Your task to perform on an android device: choose inbox layout in the gmail app Image 0: 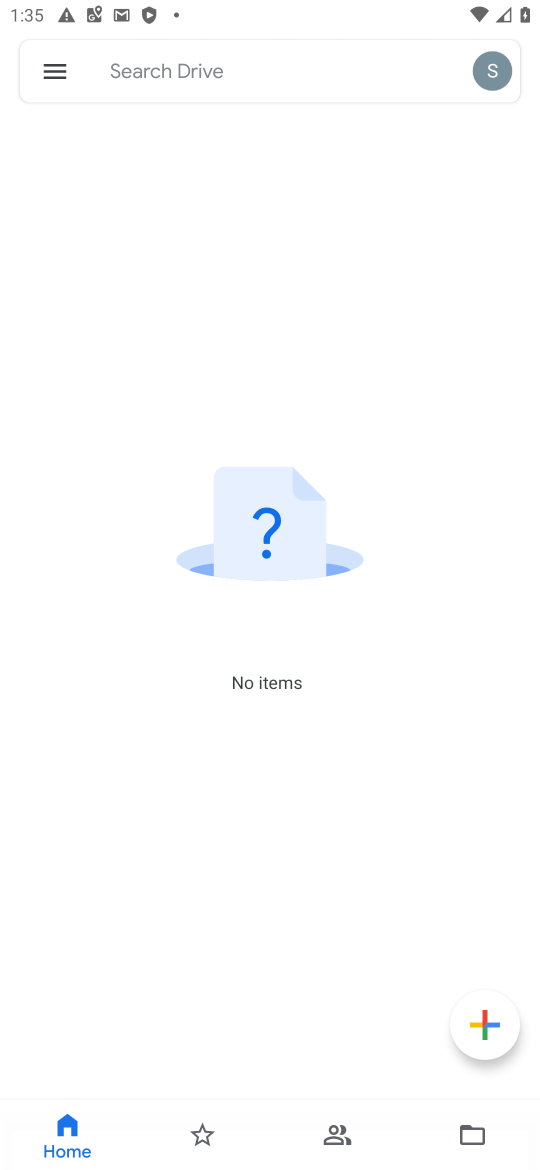
Step 0: press home button
Your task to perform on an android device: choose inbox layout in the gmail app Image 1: 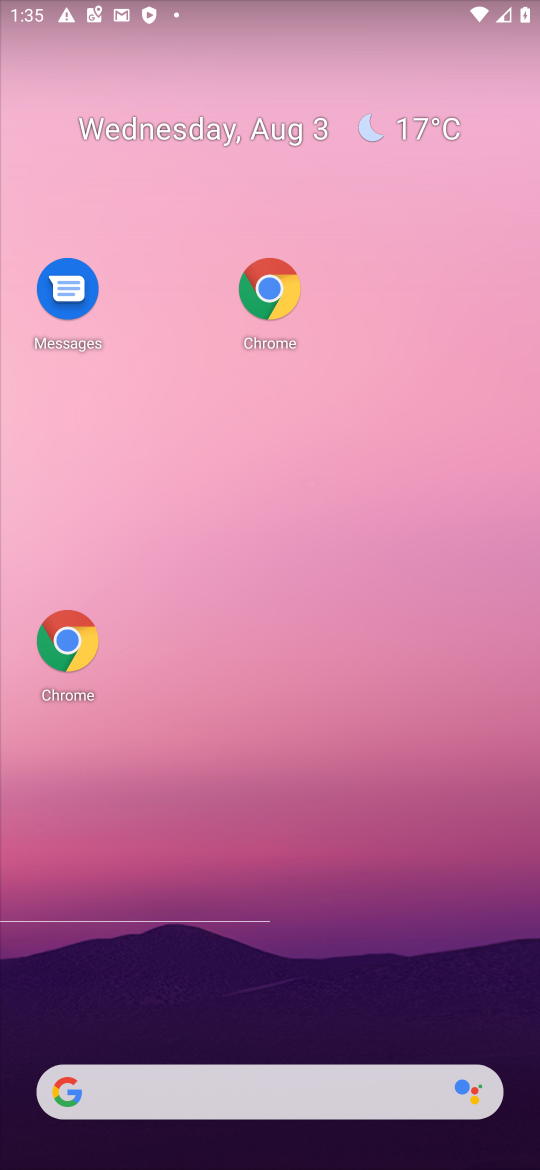
Step 1: drag from (332, 873) to (364, 343)
Your task to perform on an android device: choose inbox layout in the gmail app Image 2: 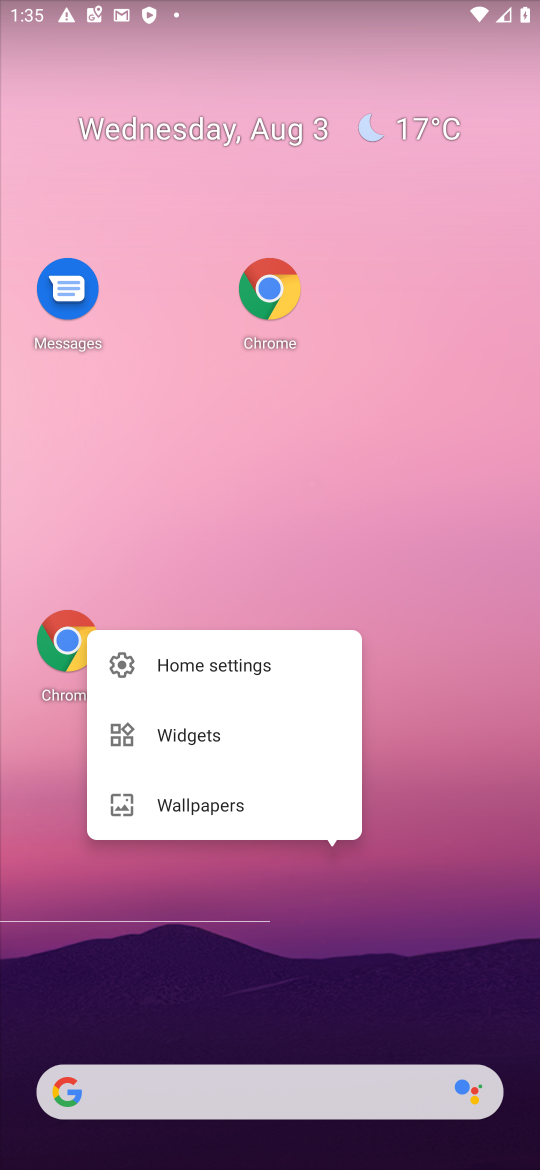
Step 2: click (356, 904)
Your task to perform on an android device: choose inbox layout in the gmail app Image 3: 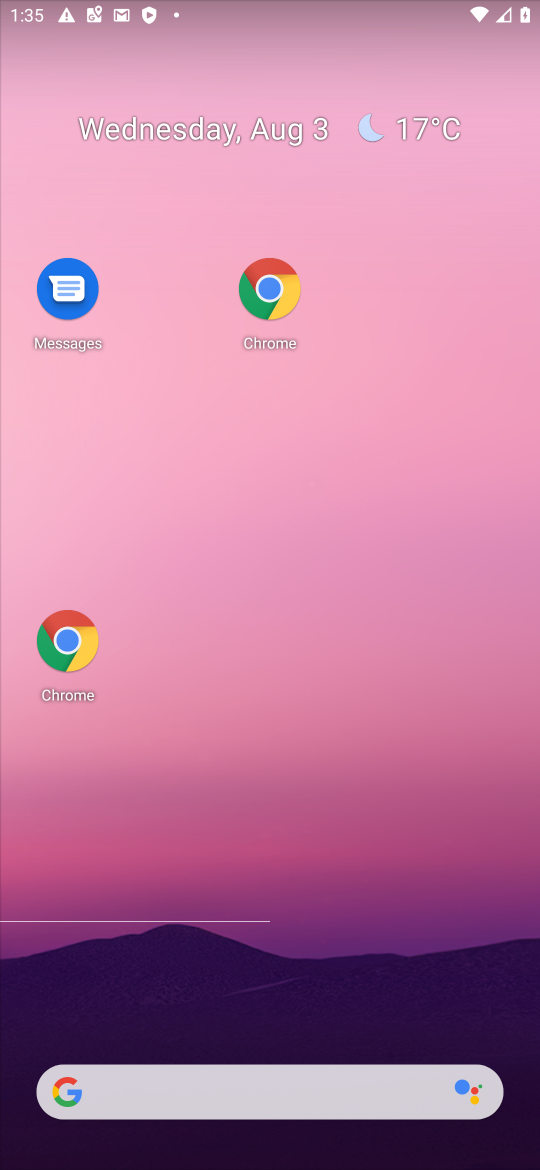
Step 3: drag from (356, 904) to (343, 305)
Your task to perform on an android device: choose inbox layout in the gmail app Image 4: 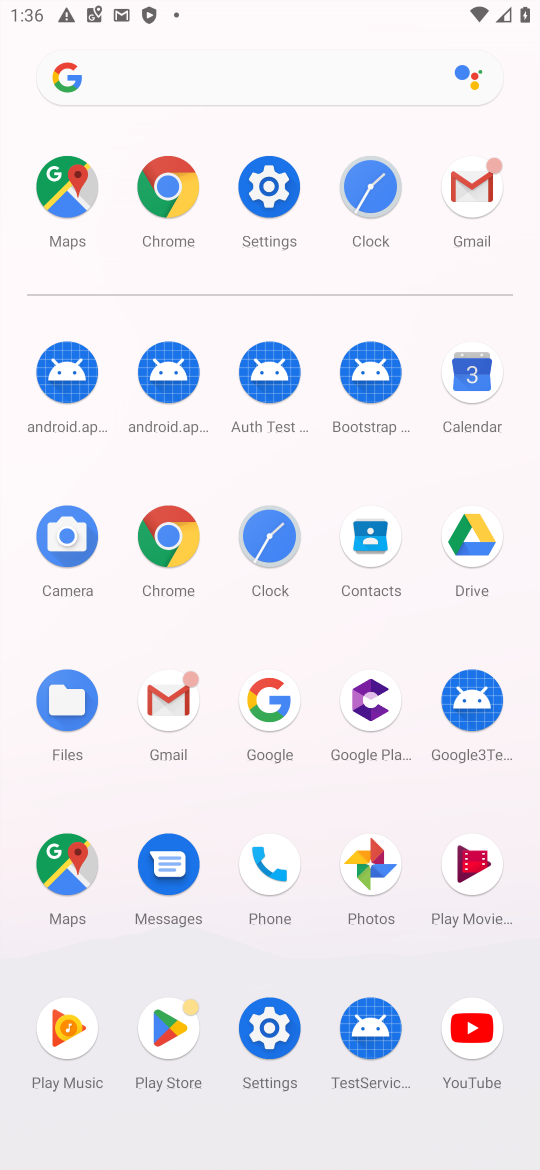
Step 4: click (471, 168)
Your task to perform on an android device: choose inbox layout in the gmail app Image 5: 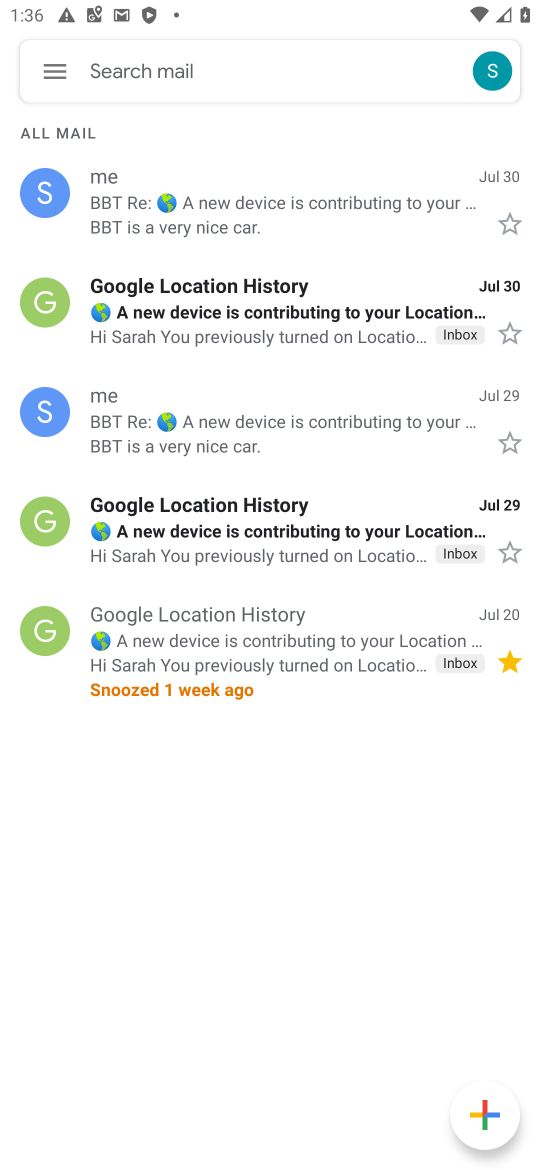
Step 5: click (64, 55)
Your task to perform on an android device: choose inbox layout in the gmail app Image 6: 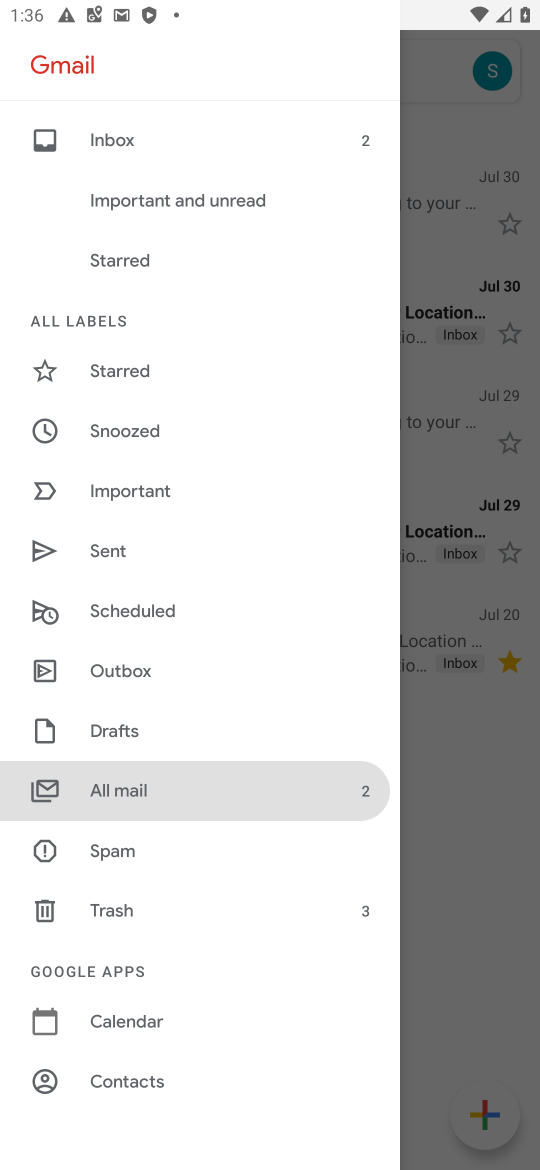
Step 6: click (91, 125)
Your task to perform on an android device: choose inbox layout in the gmail app Image 7: 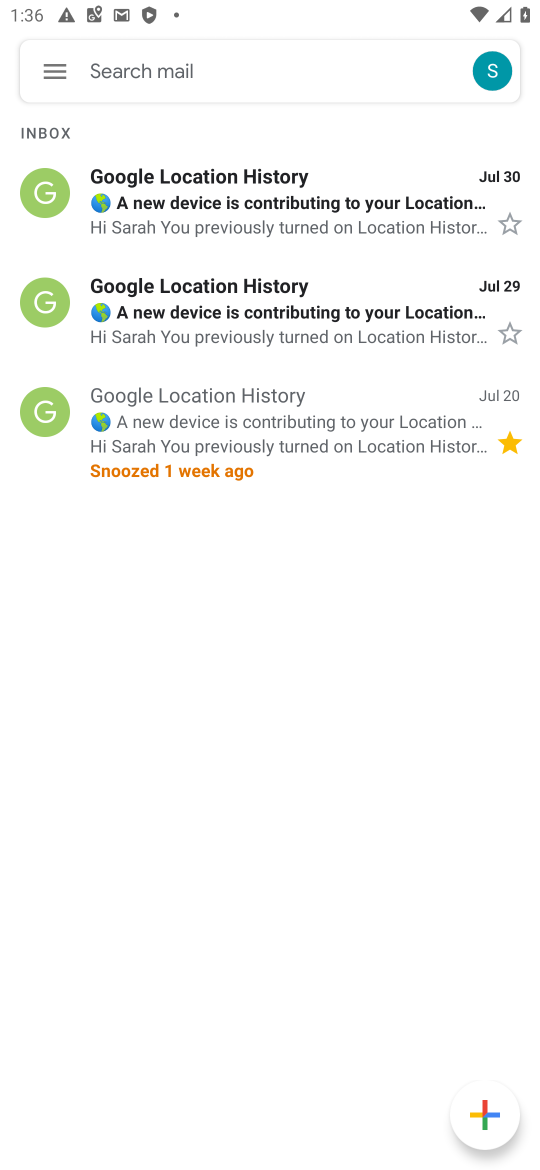
Step 7: task complete